Your task to perform on an android device: see creations saved in the google photos Image 0: 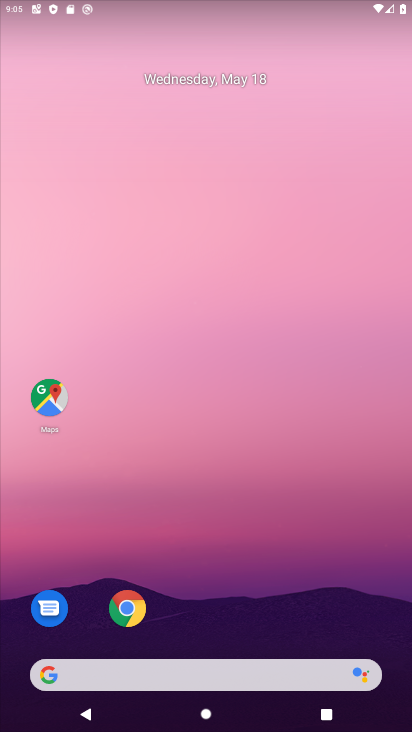
Step 0: drag from (37, 522) to (143, 221)
Your task to perform on an android device: see creations saved in the google photos Image 1: 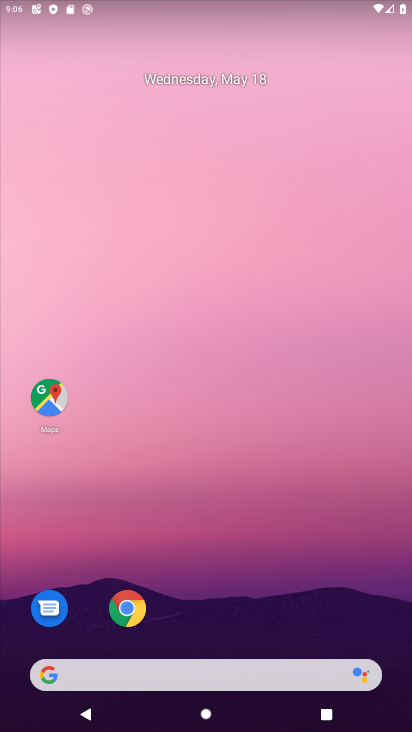
Step 1: drag from (11, 602) to (188, 157)
Your task to perform on an android device: see creations saved in the google photos Image 2: 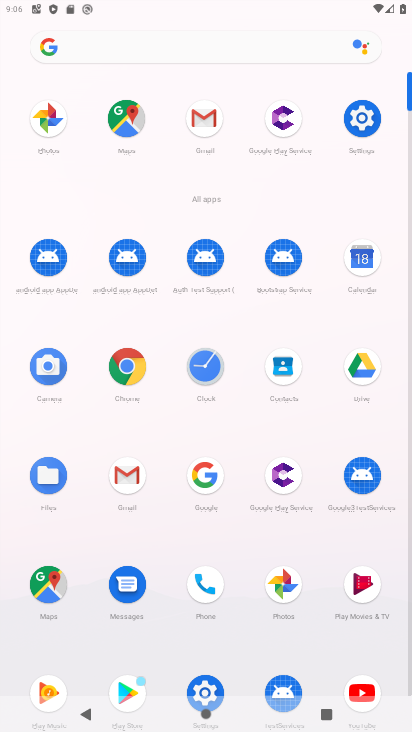
Step 2: click (38, 115)
Your task to perform on an android device: see creations saved in the google photos Image 3: 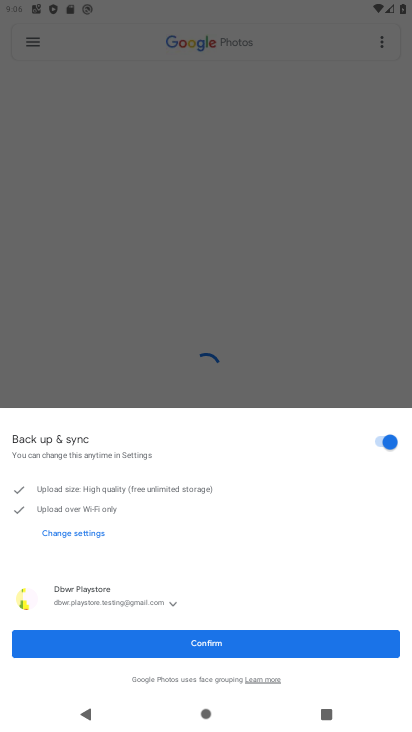
Step 3: click (178, 649)
Your task to perform on an android device: see creations saved in the google photos Image 4: 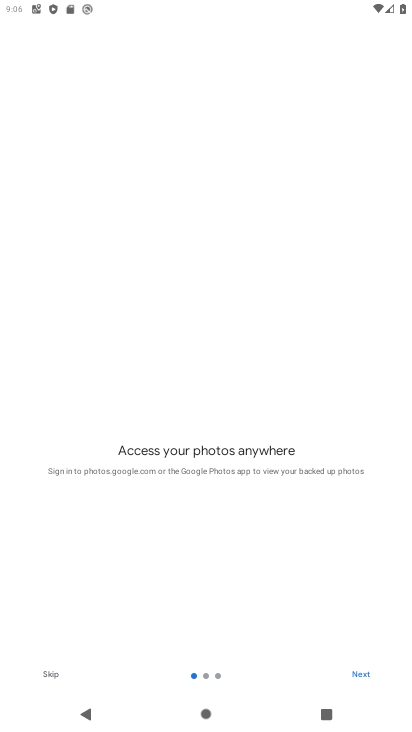
Step 4: click (365, 675)
Your task to perform on an android device: see creations saved in the google photos Image 5: 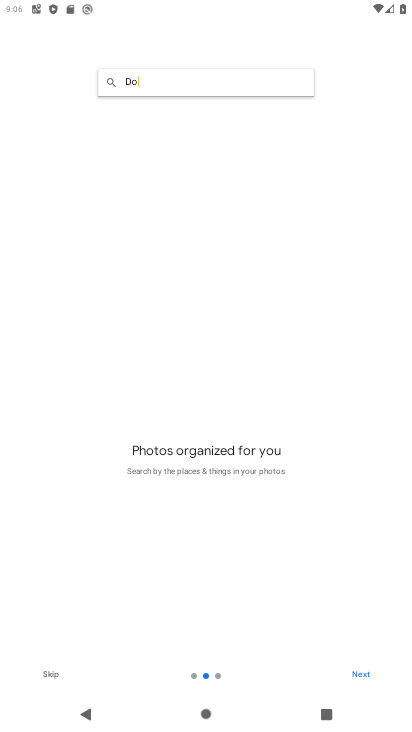
Step 5: click (365, 675)
Your task to perform on an android device: see creations saved in the google photos Image 6: 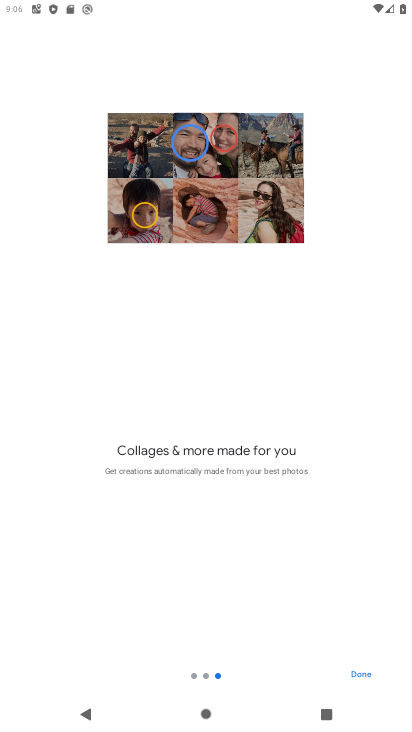
Step 6: click (365, 675)
Your task to perform on an android device: see creations saved in the google photos Image 7: 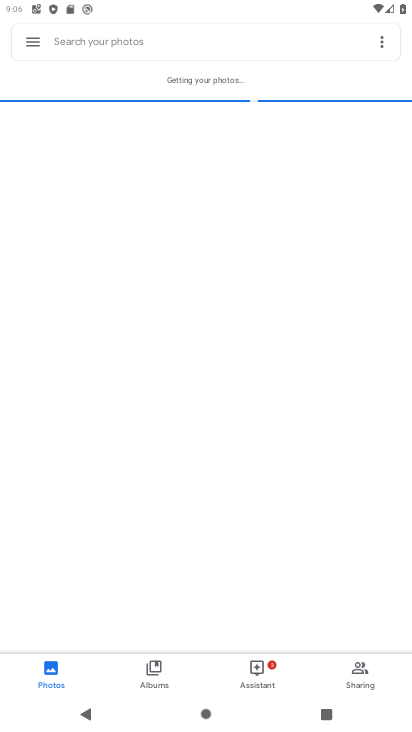
Step 7: click (145, 28)
Your task to perform on an android device: see creations saved in the google photos Image 8: 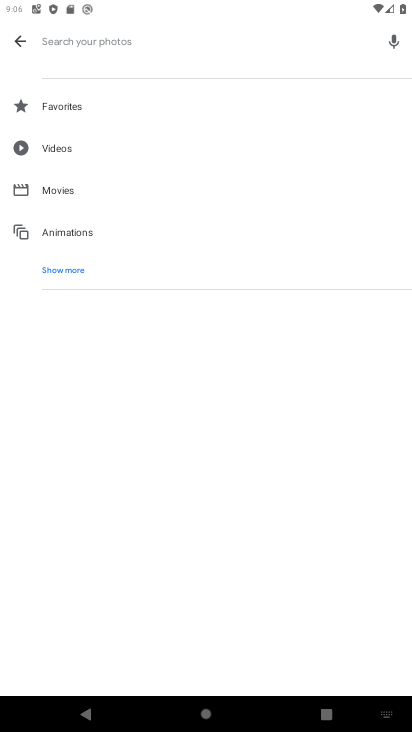
Step 8: click (39, 264)
Your task to perform on an android device: see creations saved in the google photos Image 9: 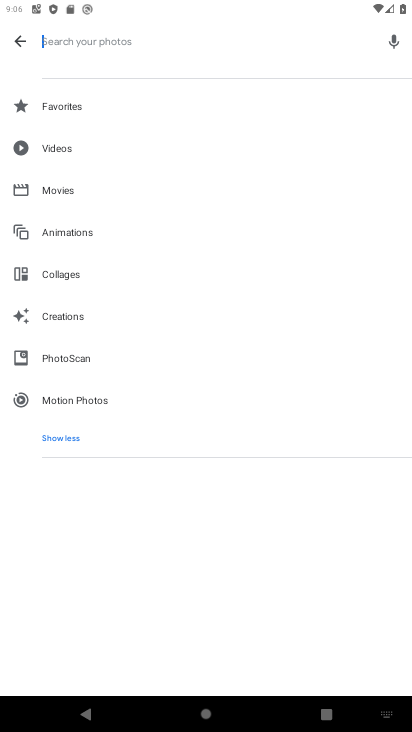
Step 9: click (82, 323)
Your task to perform on an android device: see creations saved in the google photos Image 10: 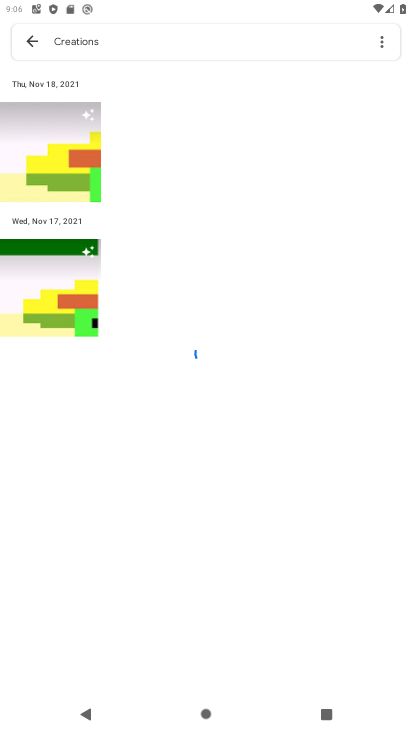
Step 10: task complete